Your task to perform on an android device: Go to battery settings Image 0: 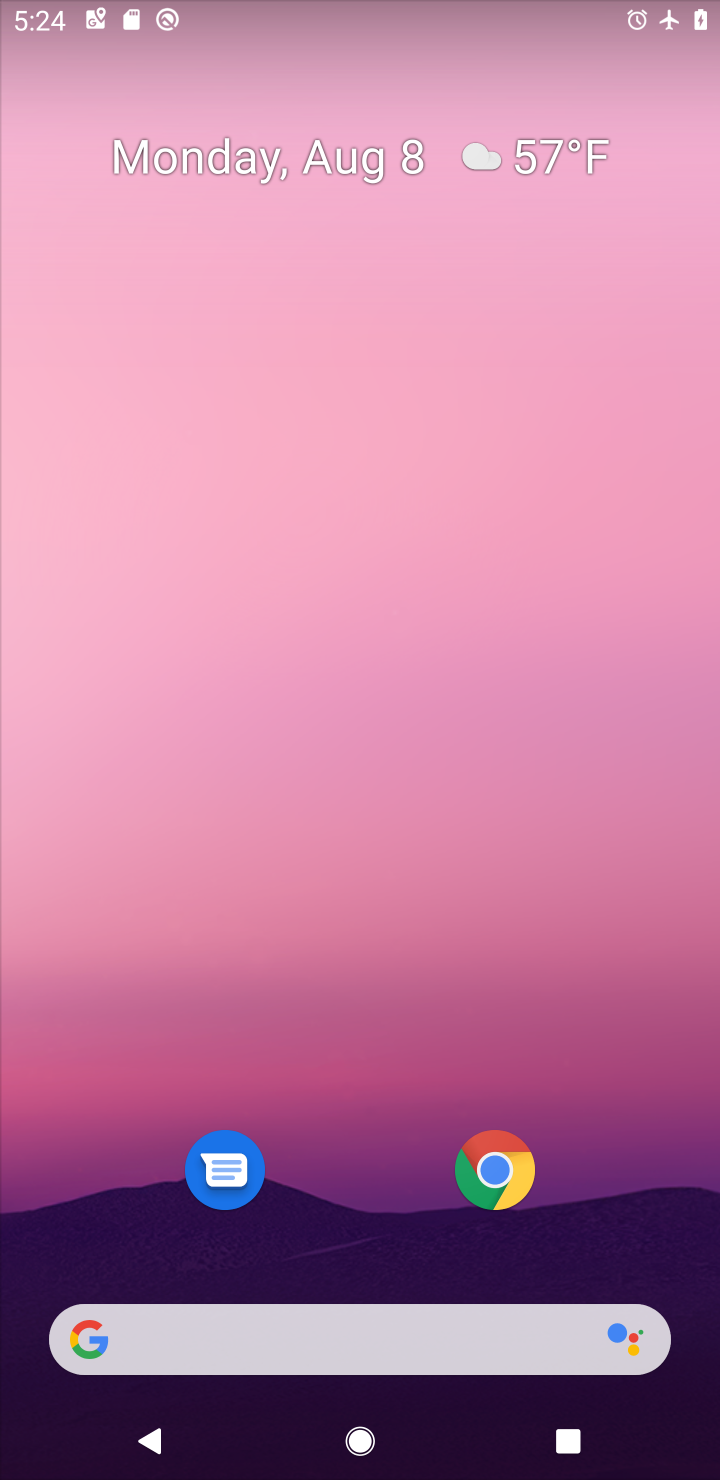
Step 0: drag from (375, 1180) to (324, 406)
Your task to perform on an android device: Go to battery settings Image 1: 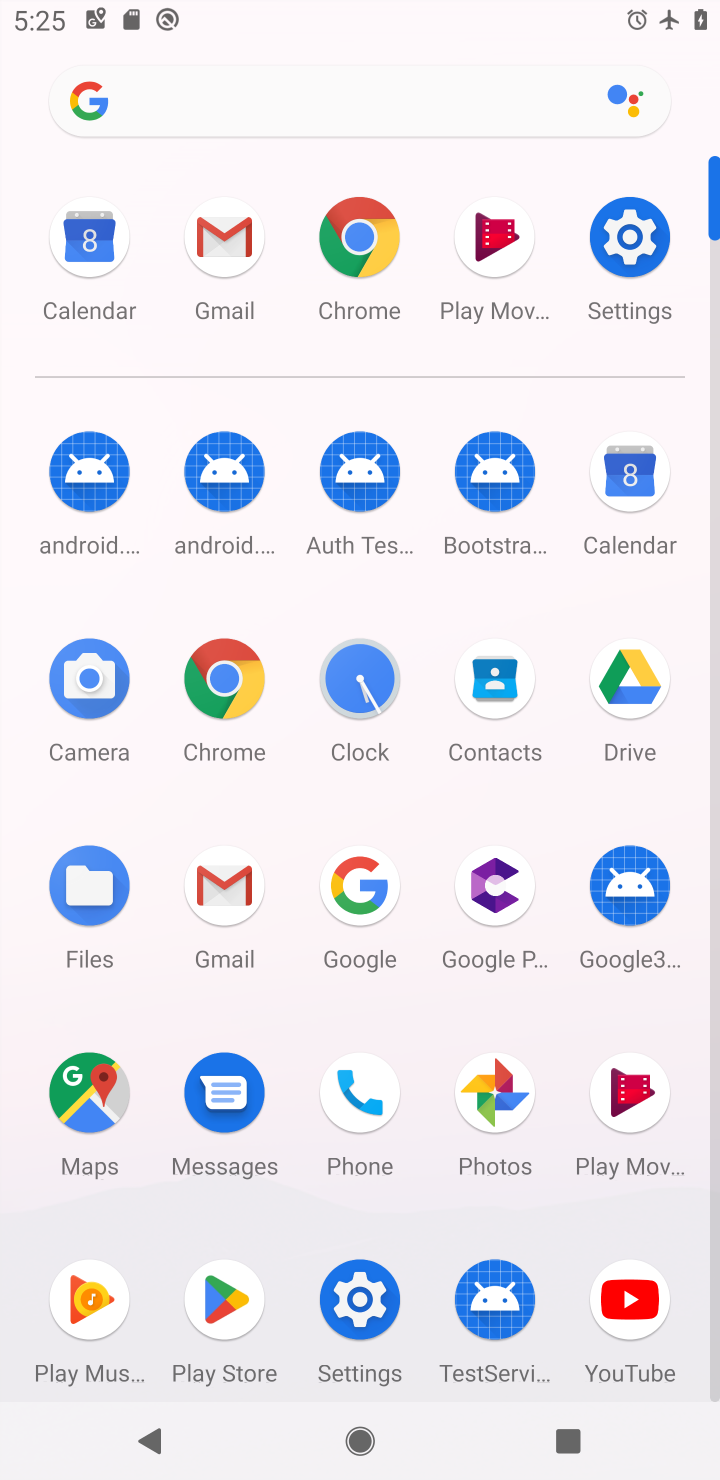
Step 1: click (640, 252)
Your task to perform on an android device: Go to battery settings Image 2: 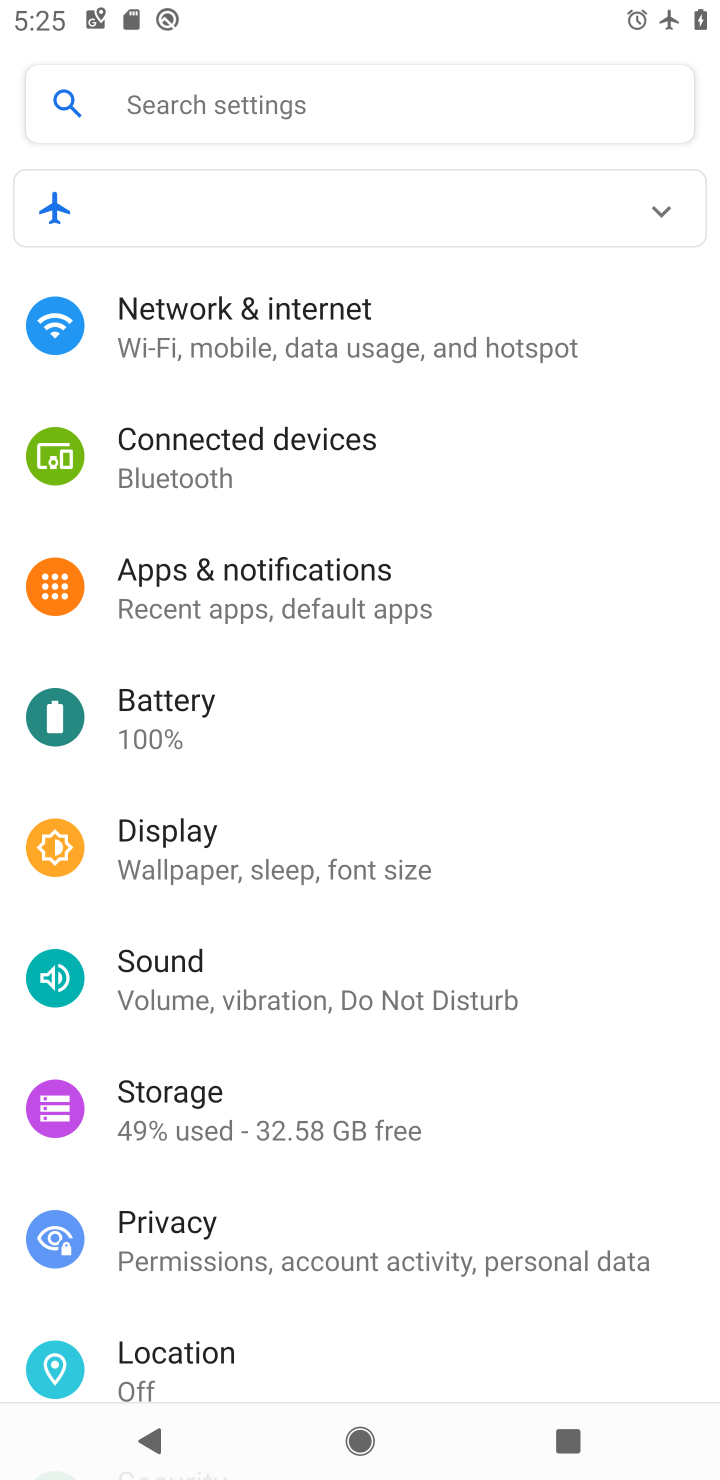
Step 2: click (252, 722)
Your task to perform on an android device: Go to battery settings Image 3: 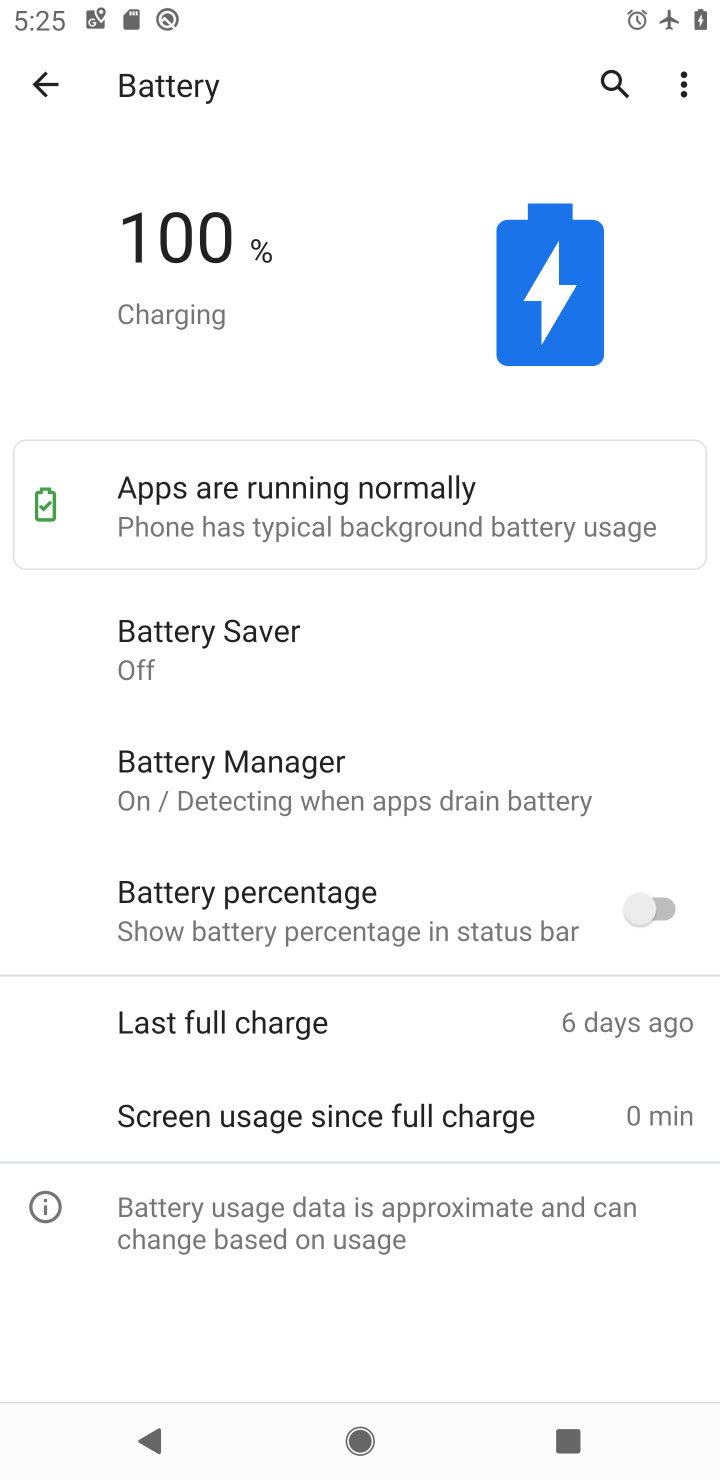
Step 3: task complete